Your task to perform on an android device: star an email in the gmail app Image 0: 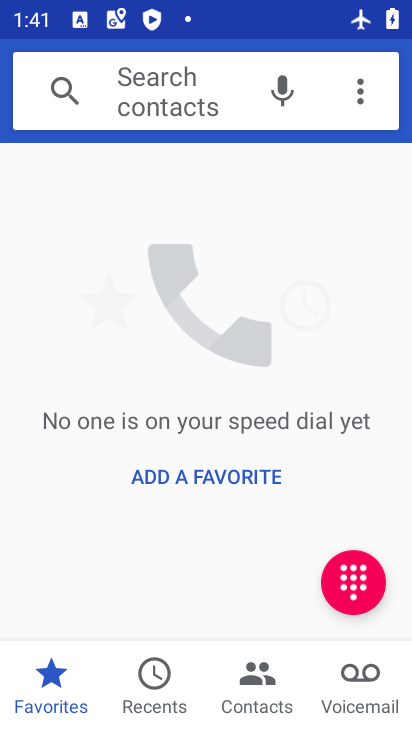
Step 0: press home button
Your task to perform on an android device: star an email in the gmail app Image 1: 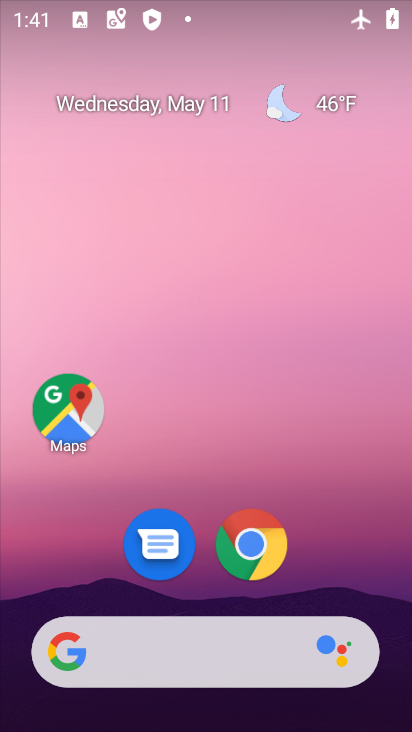
Step 1: drag from (397, 606) to (228, 24)
Your task to perform on an android device: star an email in the gmail app Image 2: 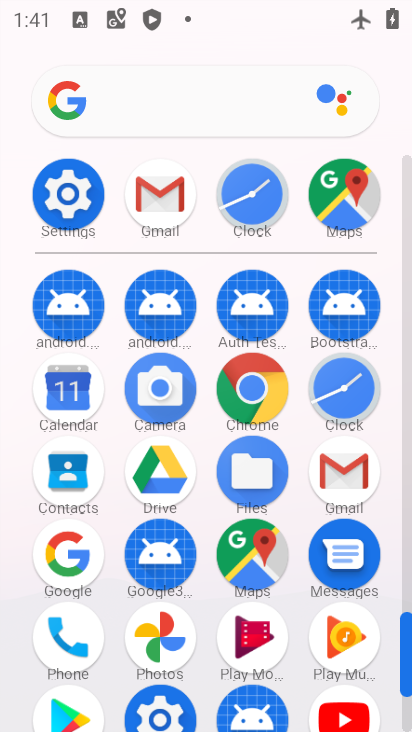
Step 2: click (405, 716)
Your task to perform on an android device: star an email in the gmail app Image 3: 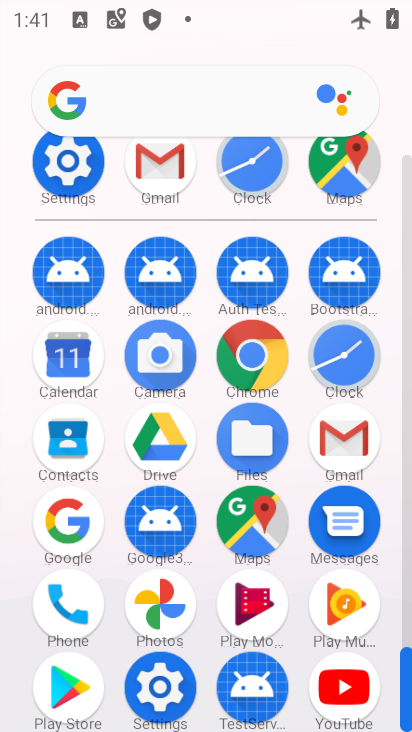
Step 3: click (343, 435)
Your task to perform on an android device: star an email in the gmail app Image 4: 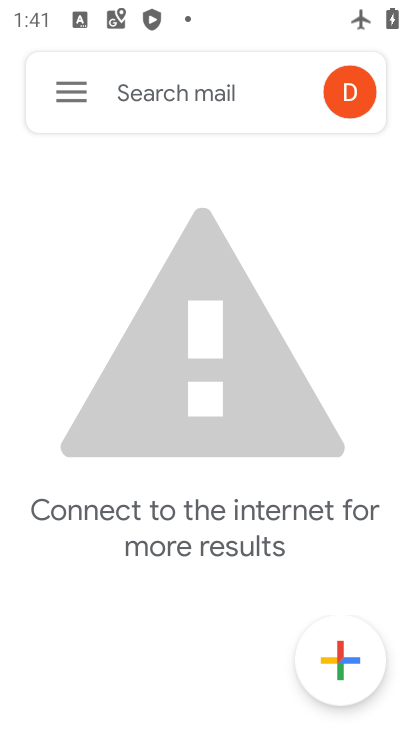
Step 4: click (65, 90)
Your task to perform on an android device: star an email in the gmail app Image 5: 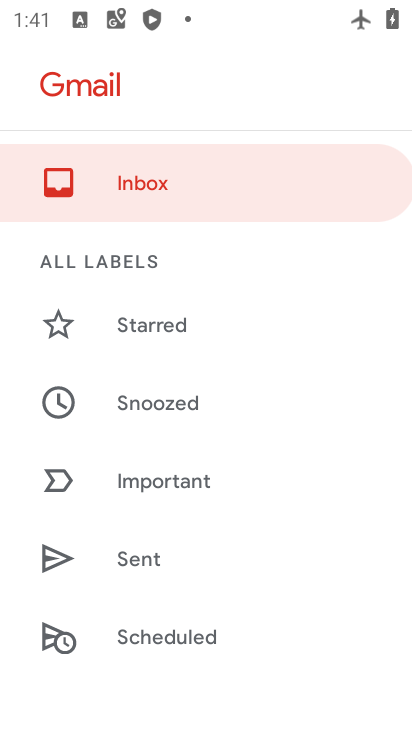
Step 5: drag from (247, 638) to (243, 289)
Your task to perform on an android device: star an email in the gmail app Image 6: 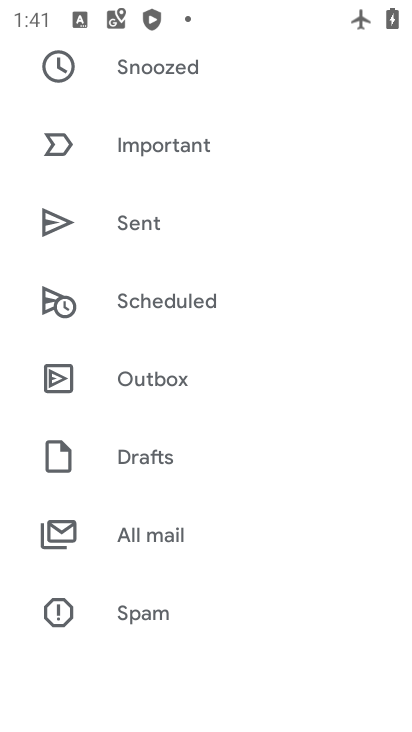
Step 6: click (130, 535)
Your task to perform on an android device: star an email in the gmail app Image 7: 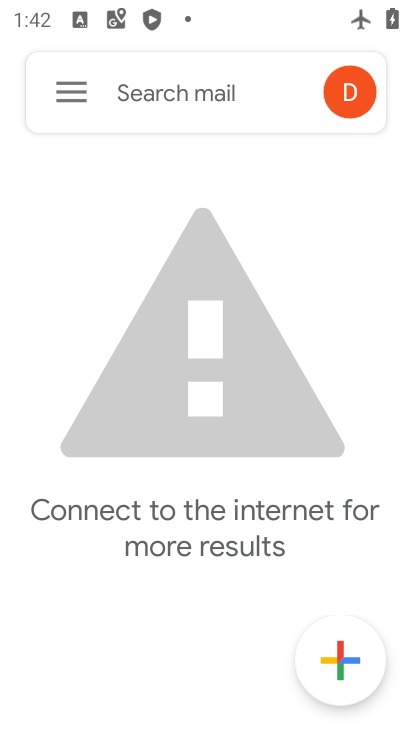
Step 7: task complete